Your task to perform on an android device: Open Chrome and go to settings Image 0: 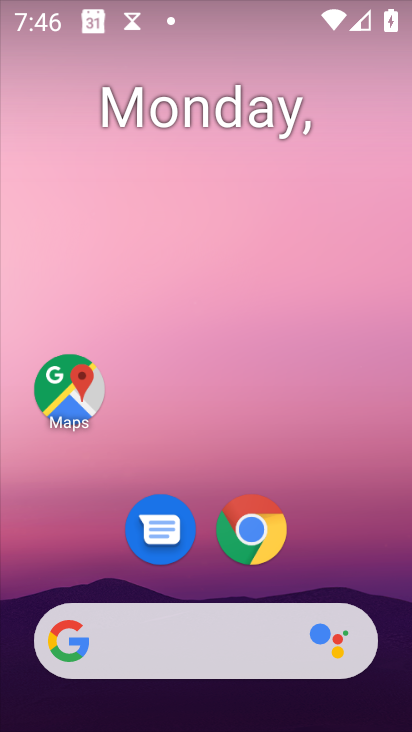
Step 0: click (261, 525)
Your task to perform on an android device: Open Chrome and go to settings Image 1: 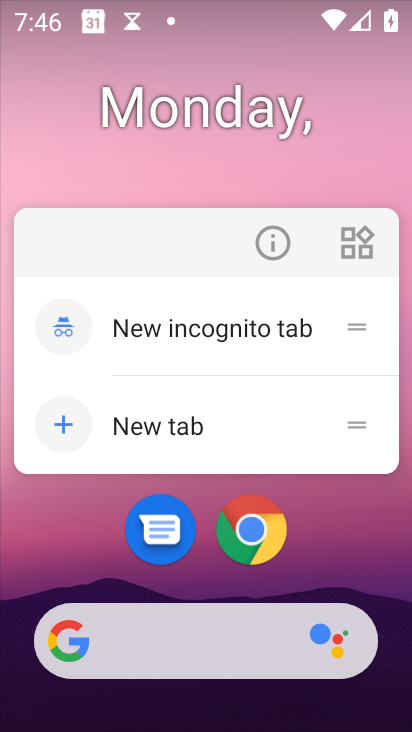
Step 1: click (275, 242)
Your task to perform on an android device: Open Chrome and go to settings Image 2: 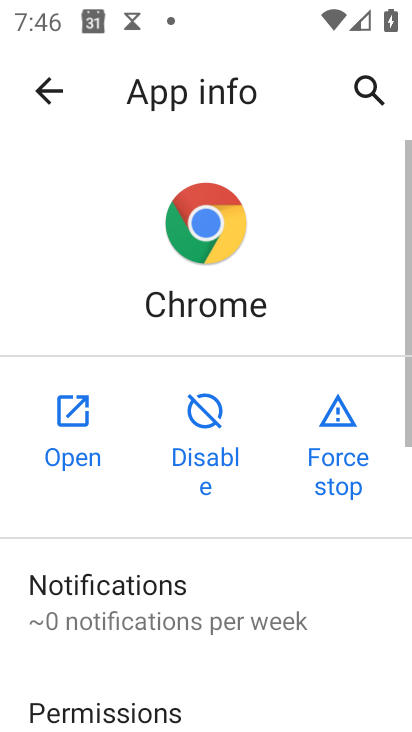
Step 2: click (57, 419)
Your task to perform on an android device: Open Chrome and go to settings Image 3: 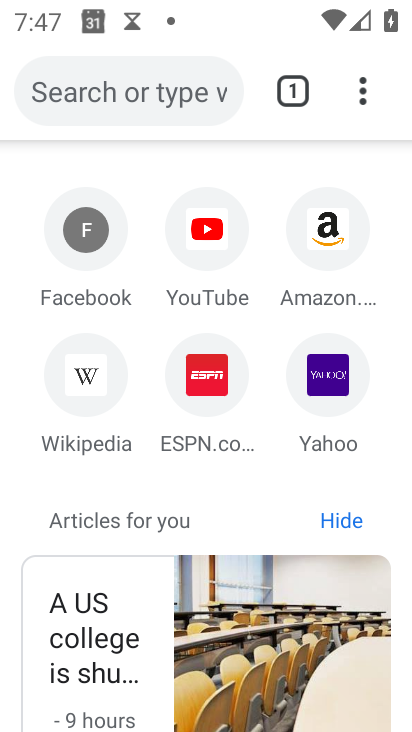
Step 3: click (362, 97)
Your task to perform on an android device: Open Chrome and go to settings Image 4: 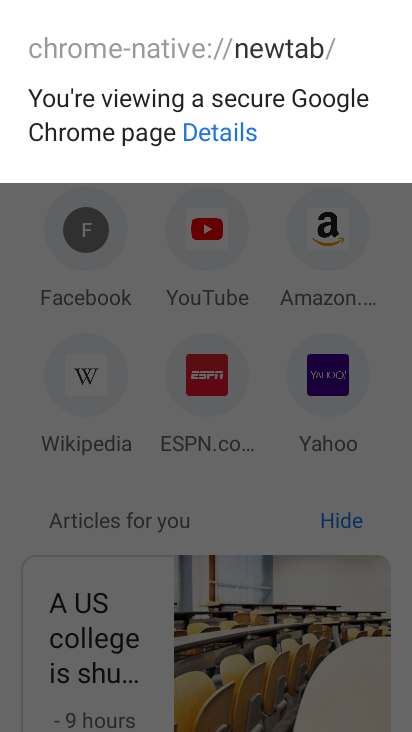
Step 4: click (242, 285)
Your task to perform on an android device: Open Chrome and go to settings Image 5: 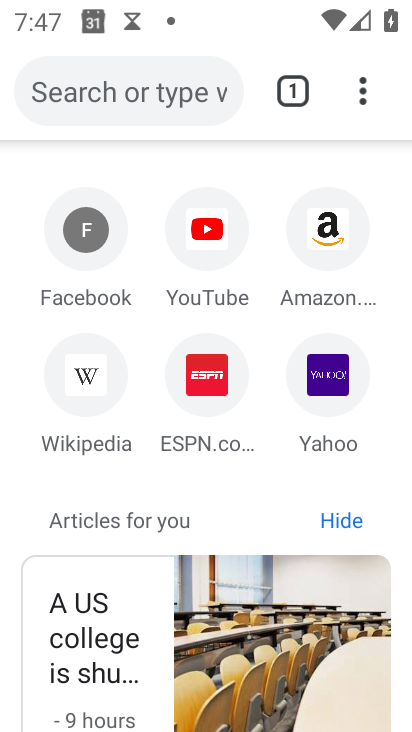
Step 5: click (360, 89)
Your task to perform on an android device: Open Chrome and go to settings Image 6: 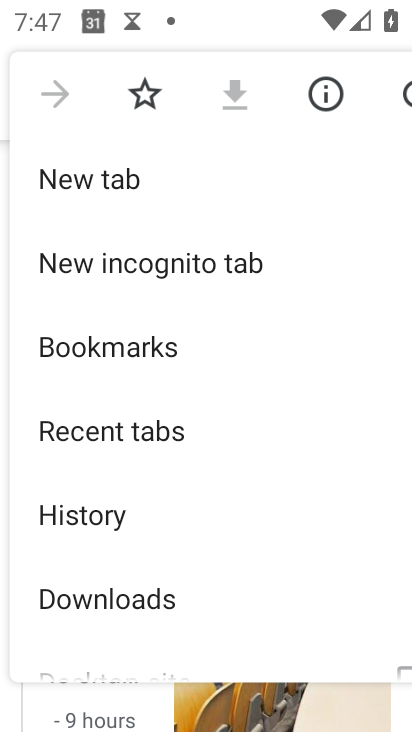
Step 6: drag from (144, 564) to (259, 160)
Your task to perform on an android device: Open Chrome and go to settings Image 7: 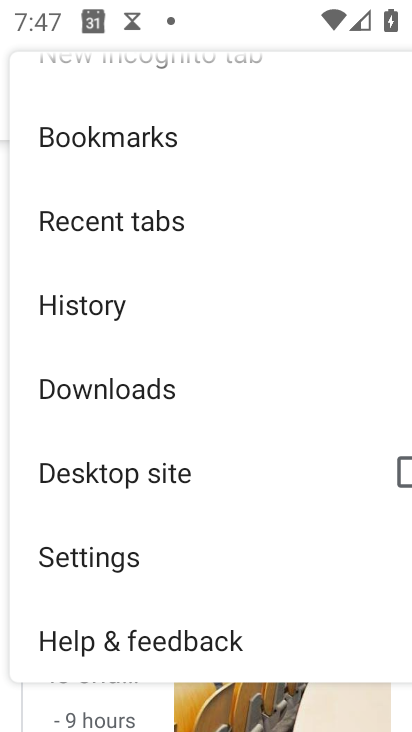
Step 7: click (109, 553)
Your task to perform on an android device: Open Chrome and go to settings Image 8: 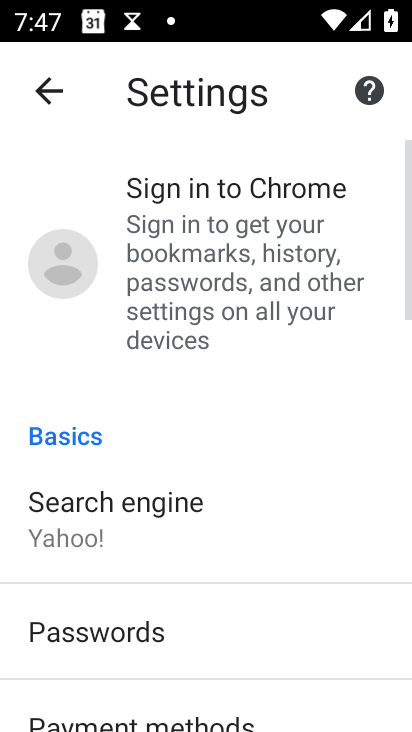
Step 8: task complete